Your task to perform on an android device: Open my contact list Image 0: 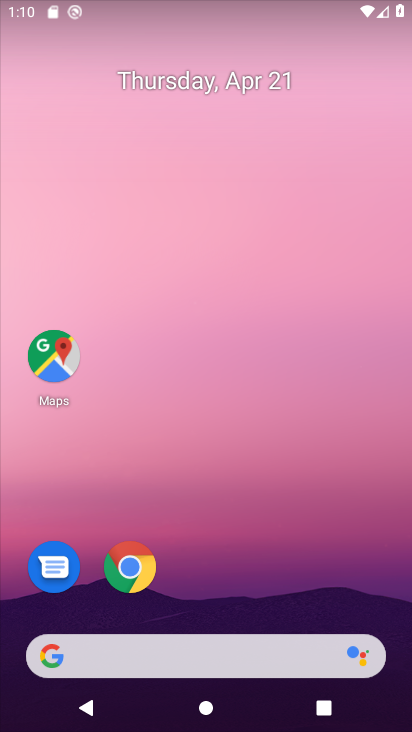
Step 0: drag from (217, 614) to (188, 40)
Your task to perform on an android device: Open my contact list Image 1: 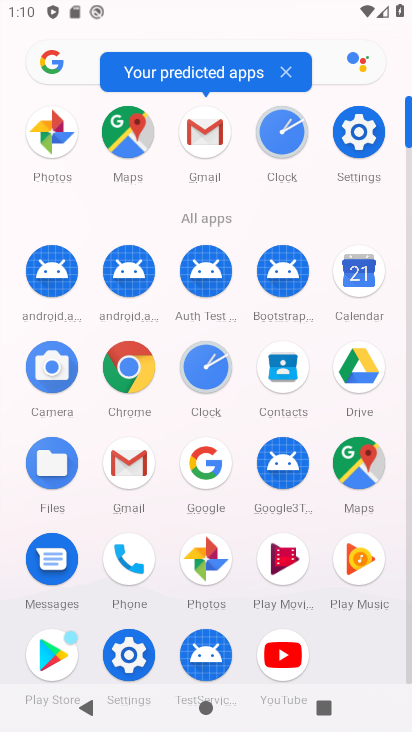
Step 1: click (281, 361)
Your task to perform on an android device: Open my contact list Image 2: 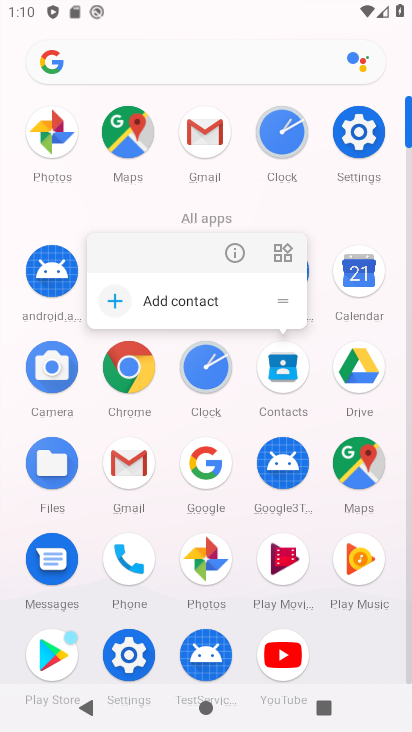
Step 2: click (279, 361)
Your task to perform on an android device: Open my contact list Image 3: 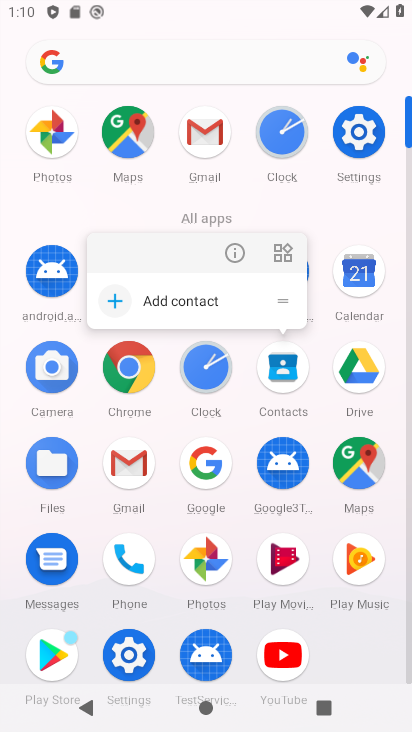
Step 3: click (281, 363)
Your task to perform on an android device: Open my contact list Image 4: 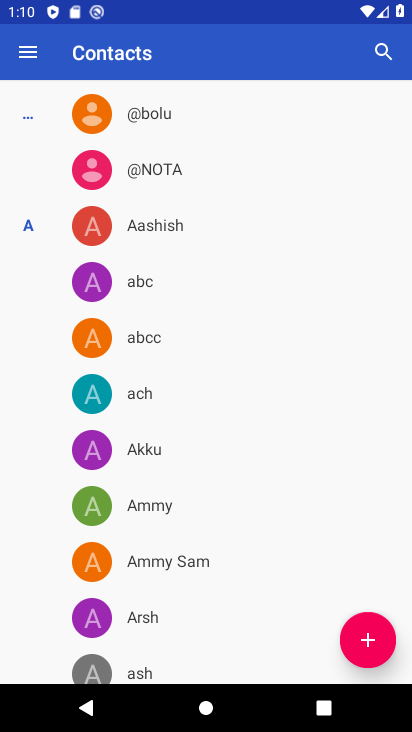
Step 4: task complete